Your task to perform on an android device: Open Amazon Image 0: 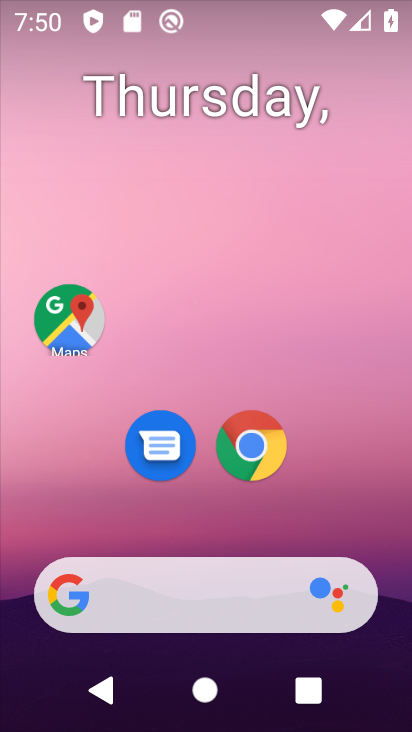
Step 0: drag from (188, 537) to (214, 160)
Your task to perform on an android device: Open Amazon Image 1: 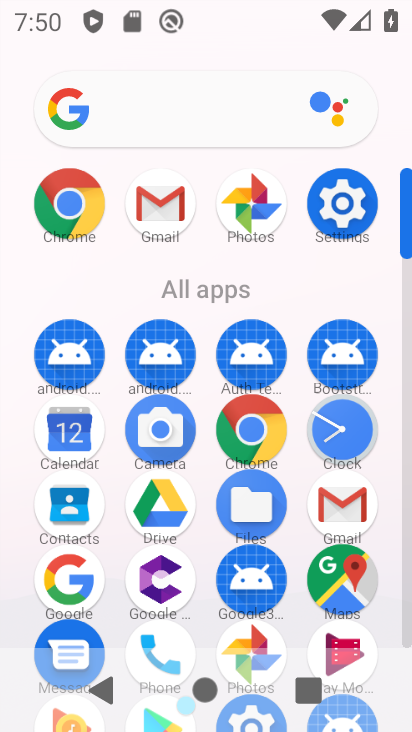
Step 1: click (64, 194)
Your task to perform on an android device: Open Amazon Image 2: 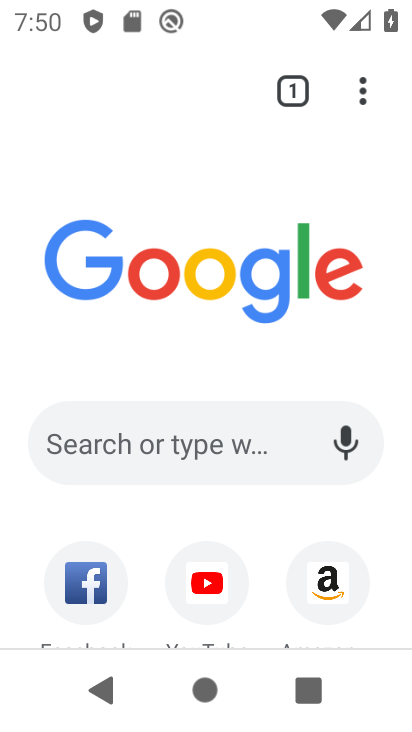
Step 2: click (332, 590)
Your task to perform on an android device: Open Amazon Image 3: 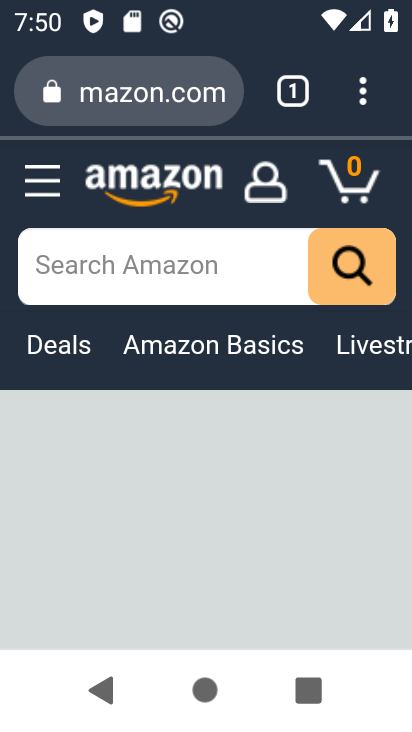
Step 3: task complete